Your task to perform on an android device: Turn on the flashlight Image 0: 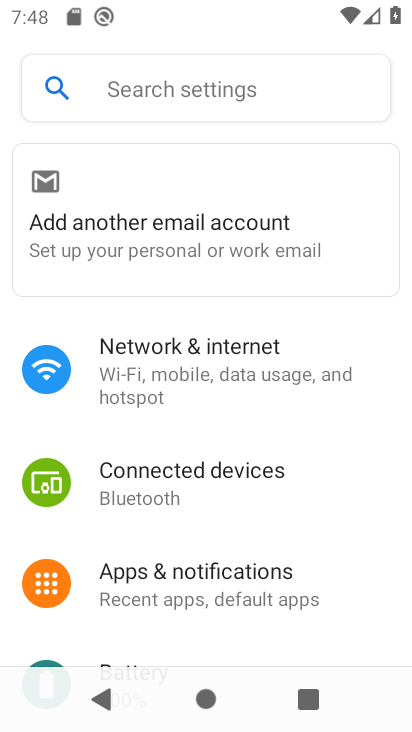
Step 0: press home button
Your task to perform on an android device: Turn on the flashlight Image 1: 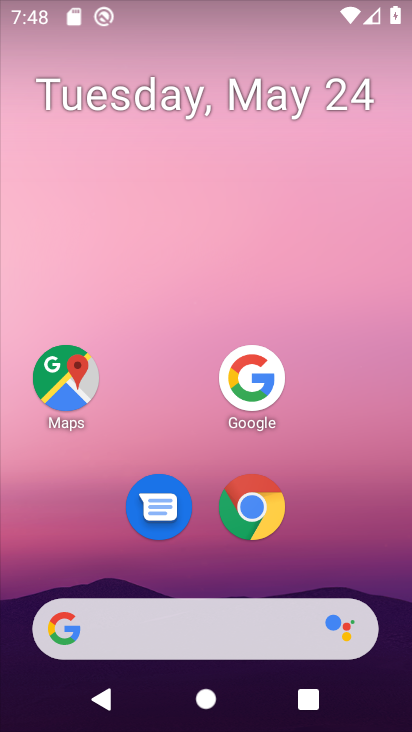
Step 1: task complete